Your task to perform on an android device: open a bookmark in the chrome app Image 0: 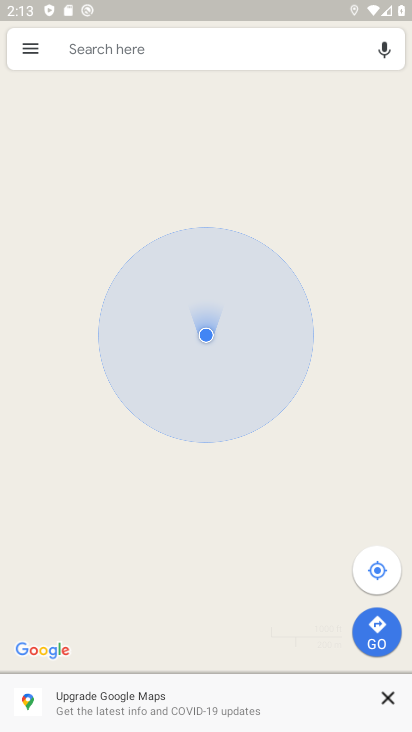
Step 0: press home button
Your task to perform on an android device: open a bookmark in the chrome app Image 1: 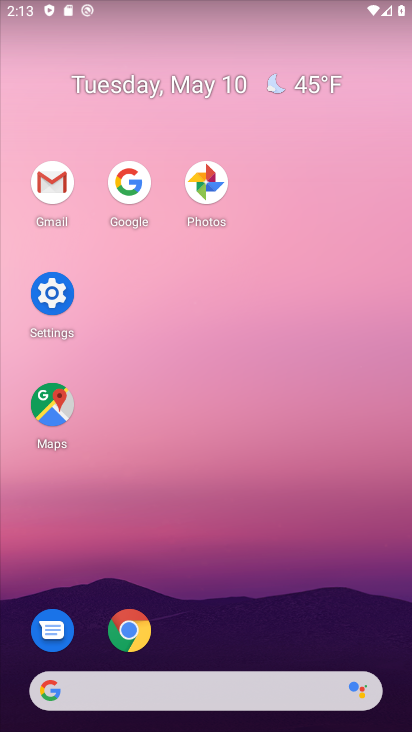
Step 1: click (131, 630)
Your task to perform on an android device: open a bookmark in the chrome app Image 2: 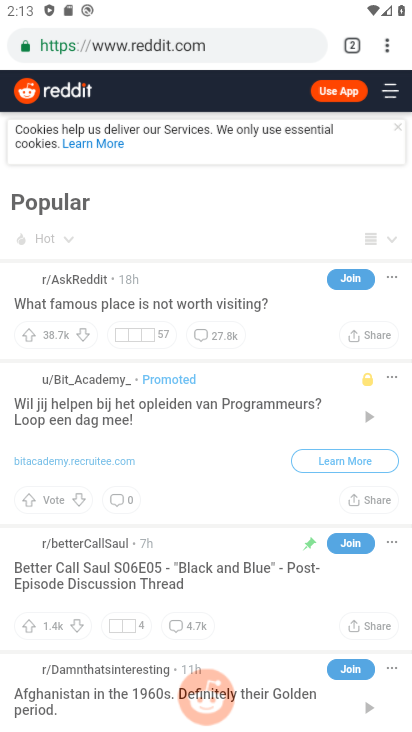
Step 2: click (395, 50)
Your task to perform on an android device: open a bookmark in the chrome app Image 3: 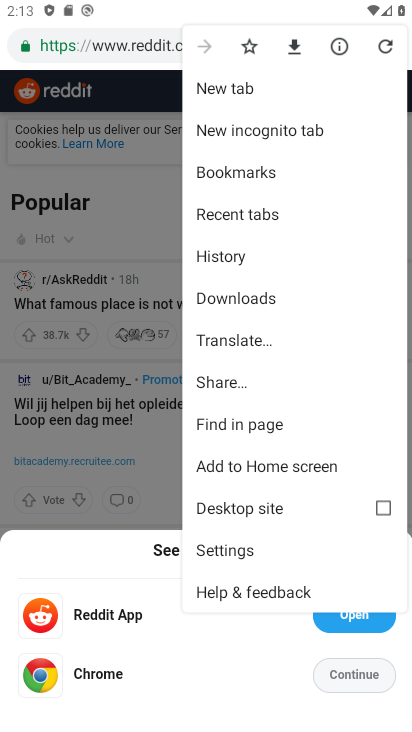
Step 3: click (273, 175)
Your task to perform on an android device: open a bookmark in the chrome app Image 4: 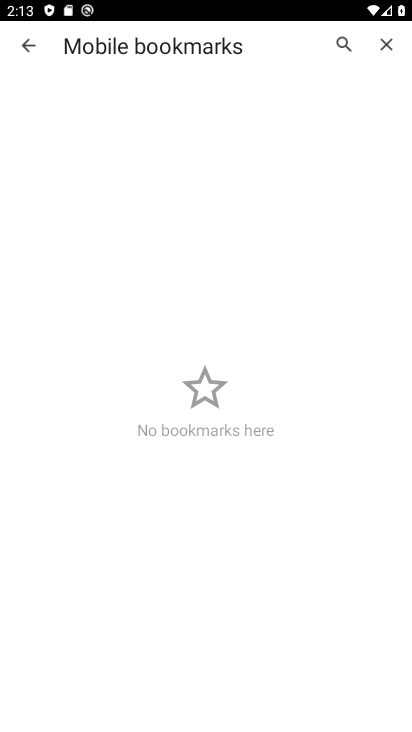
Step 4: task complete